Your task to perform on an android device: Open Google Chrome and click the shortcut for Amazon.com Image 0: 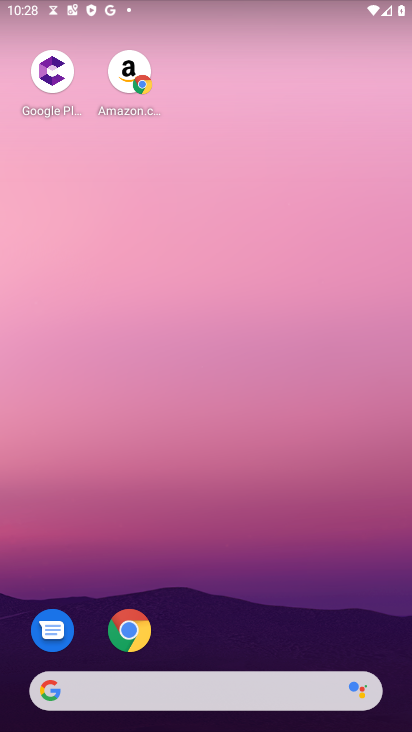
Step 0: click (129, 633)
Your task to perform on an android device: Open Google Chrome and click the shortcut for Amazon.com Image 1: 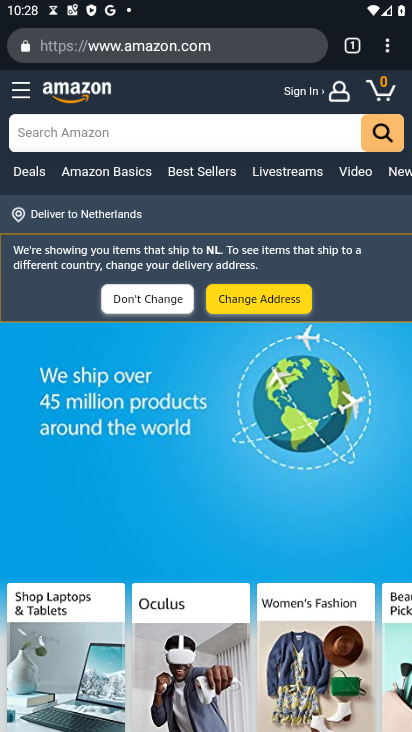
Step 1: click (390, 48)
Your task to perform on an android device: Open Google Chrome and click the shortcut for Amazon.com Image 2: 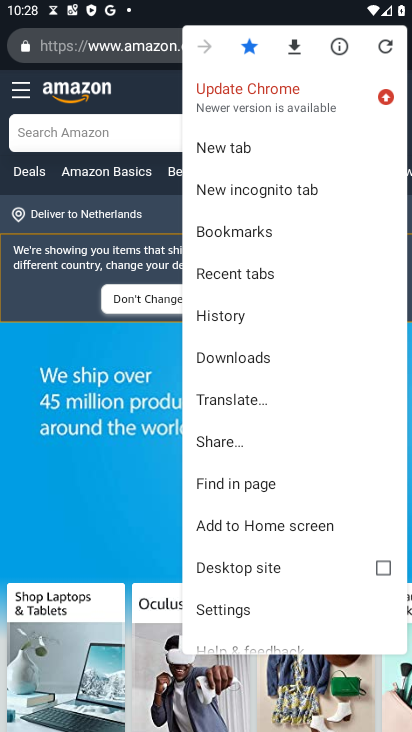
Step 2: click (251, 519)
Your task to perform on an android device: Open Google Chrome and click the shortcut for Amazon.com Image 3: 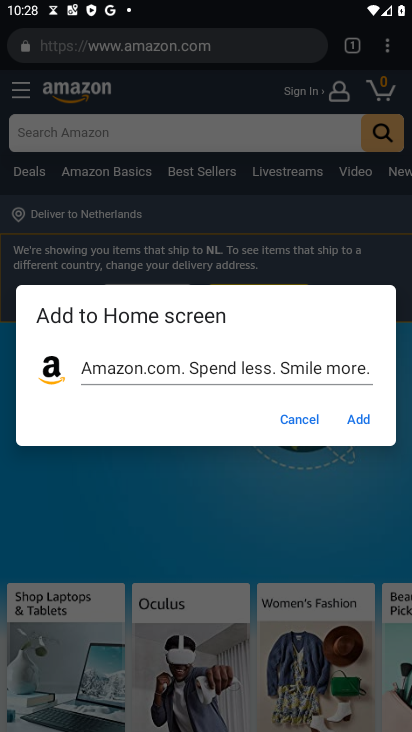
Step 3: click (357, 420)
Your task to perform on an android device: Open Google Chrome and click the shortcut for Amazon.com Image 4: 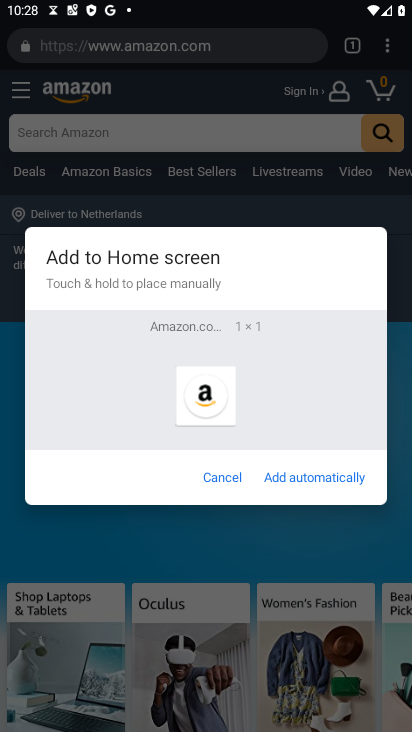
Step 4: click (336, 474)
Your task to perform on an android device: Open Google Chrome and click the shortcut for Amazon.com Image 5: 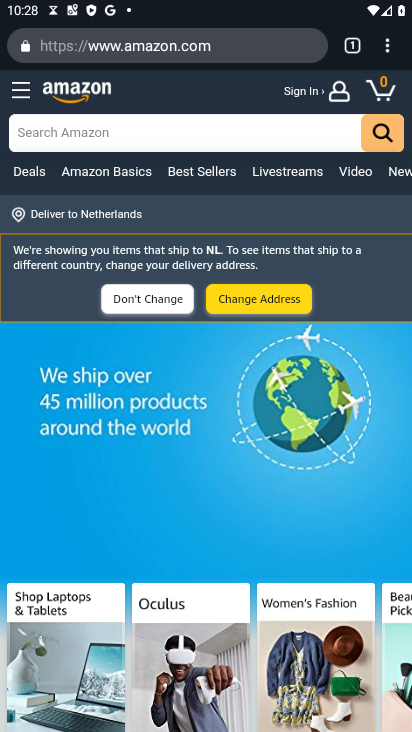
Step 5: task complete